Your task to perform on an android device: turn on data saver in the chrome app Image 0: 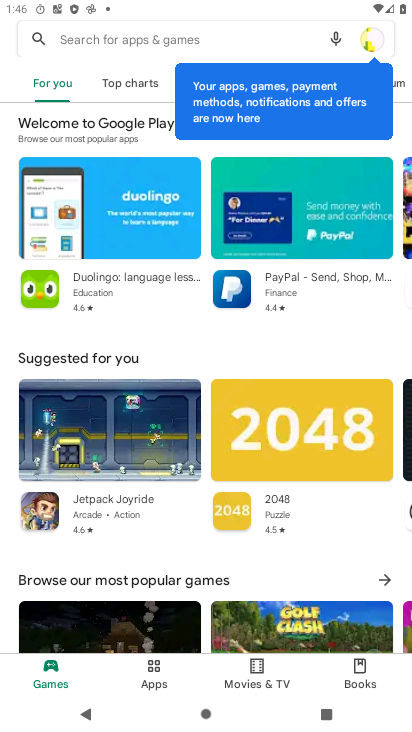
Step 0: press home button
Your task to perform on an android device: turn on data saver in the chrome app Image 1: 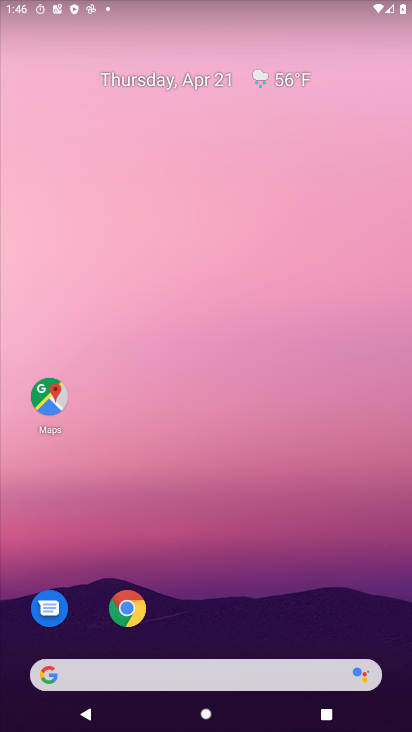
Step 1: click (146, 595)
Your task to perform on an android device: turn on data saver in the chrome app Image 2: 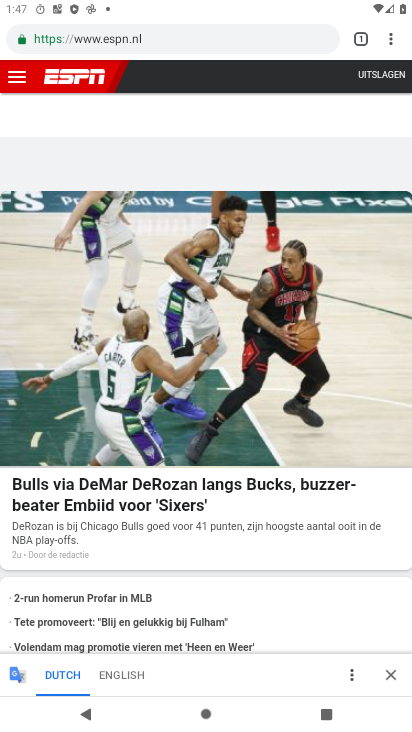
Step 2: click (395, 39)
Your task to perform on an android device: turn on data saver in the chrome app Image 3: 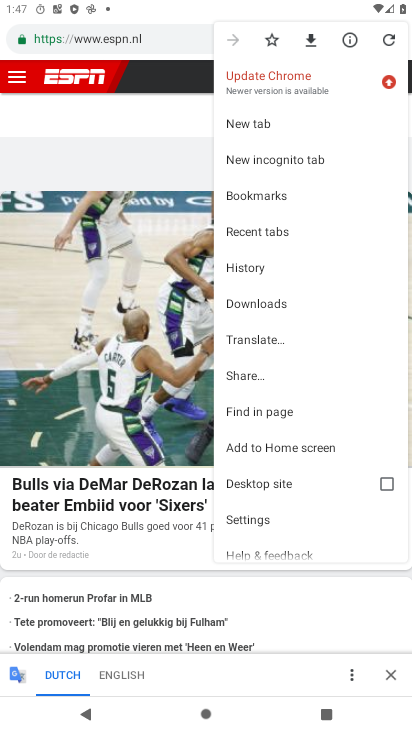
Step 3: click (288, 521)
Your task to perform on an android device: turn on data saver in the chrome app Image 4: 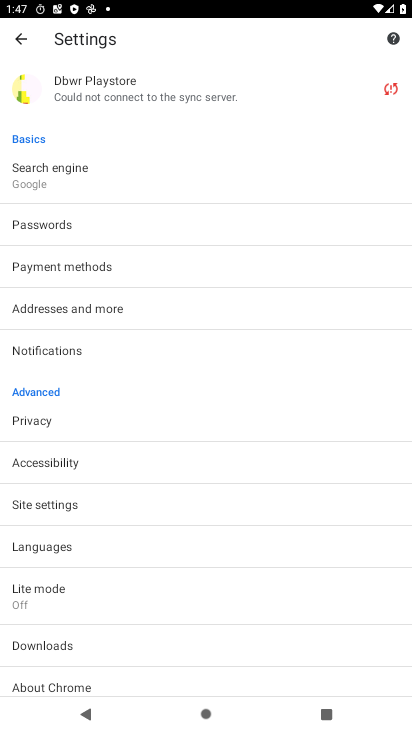
Step 4: click (95, 597)
Your task to perform on an android device: turn on data saver in the chrome app Image 5: 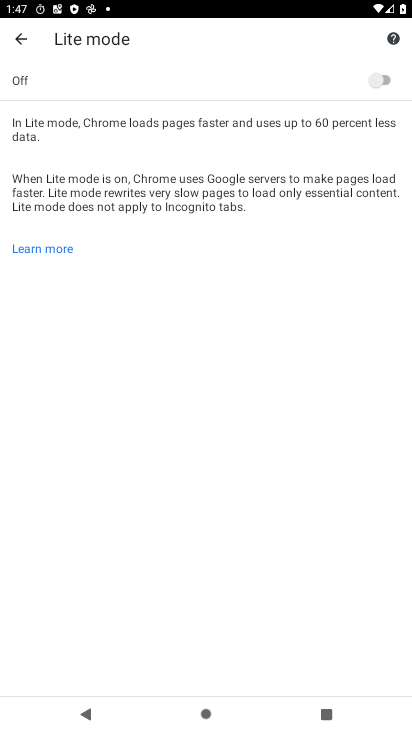
Step 5: click (389, 74)
Your task to perform on an android device: turn on data saver in the chrome app Image 6: 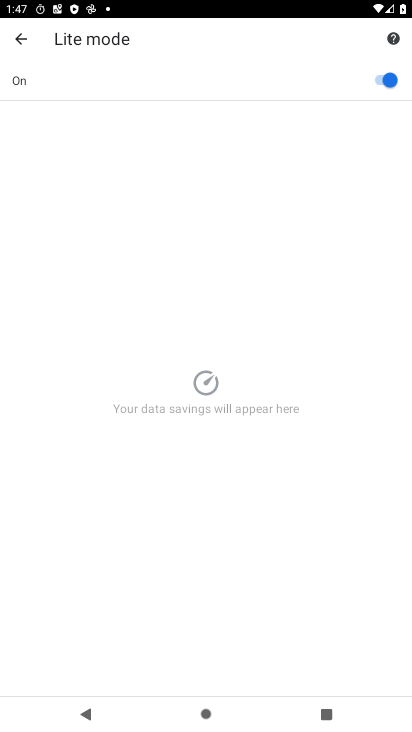
Step 6: task complete